Your task to perform on an android device: Open settings on Google Maps Image 0: 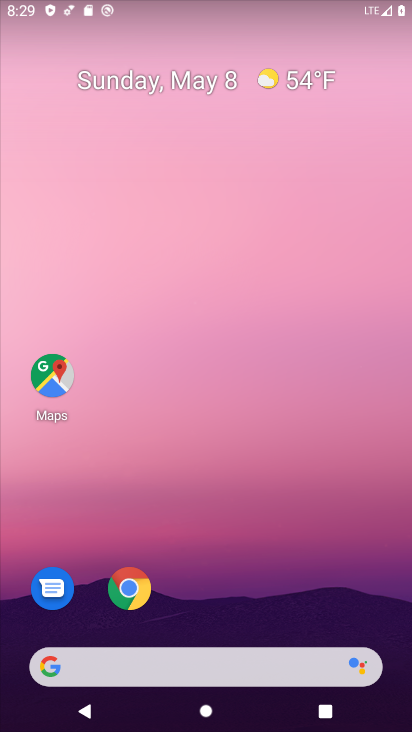
Step 0: click (48, 377)
Your task to perform on an android device: Open settings on Google Maps Image 1: 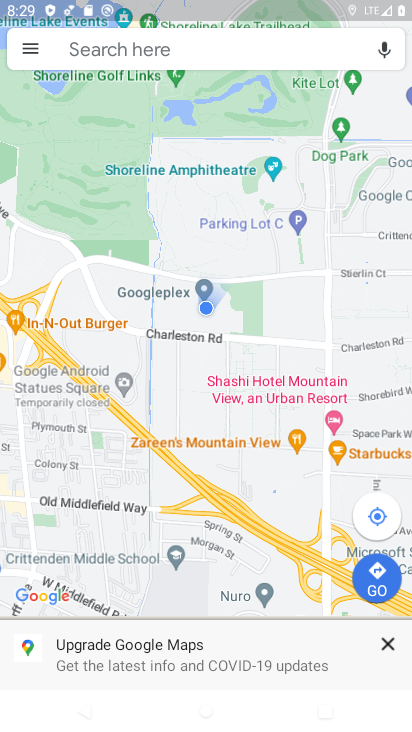
Step 1: click (23, 43)
Your task to perform on an android device: Open settings on Google Maps Image 2: 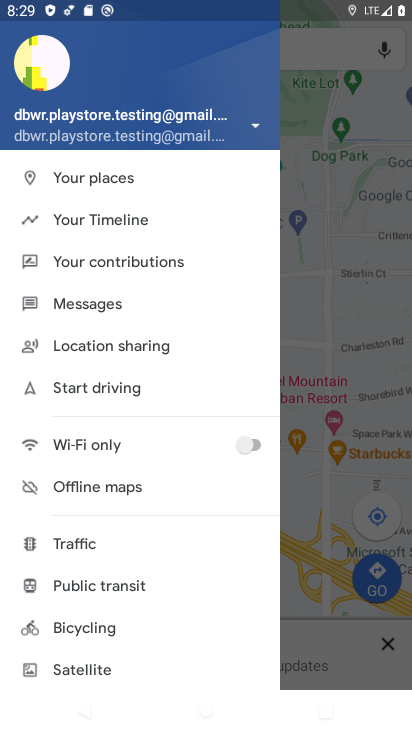
Step 2: drag from (98, 638) to (233, 200)
Your task to perform on an android device: Open settings on Google Maps Image 3: 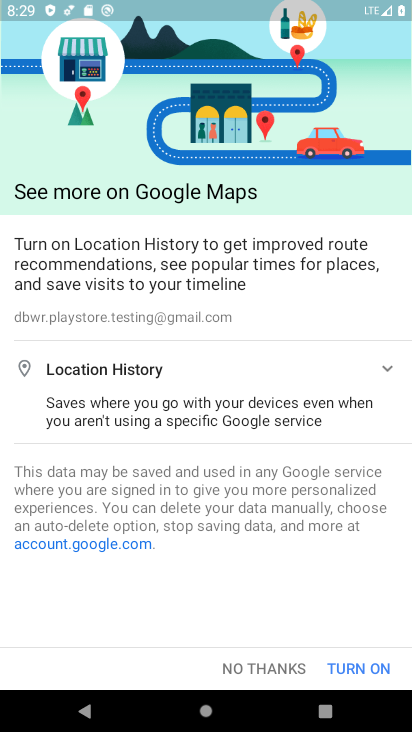
Step 3: press back button
Your task to perform on an android device: Open settings on Google Maps Image 4: 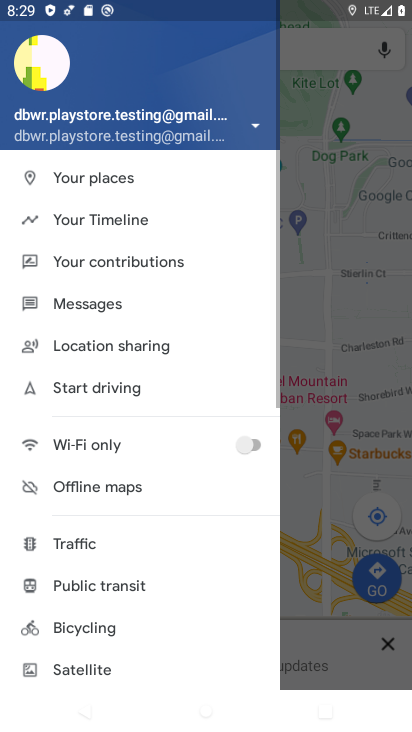
Step 4: drag from (76, 663) to (150, 222)
Your task to perform on an android device: Open settings on Google Maps Image 5: 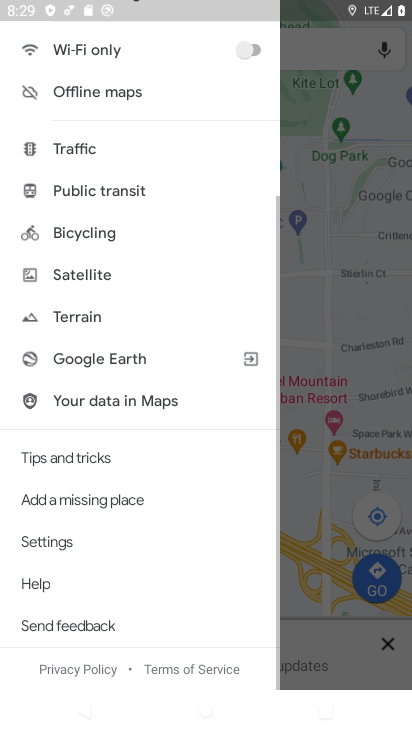
Step 5: click (64, 545)
Your task to perform on an android device: Open settings on Google Maps Image 6: 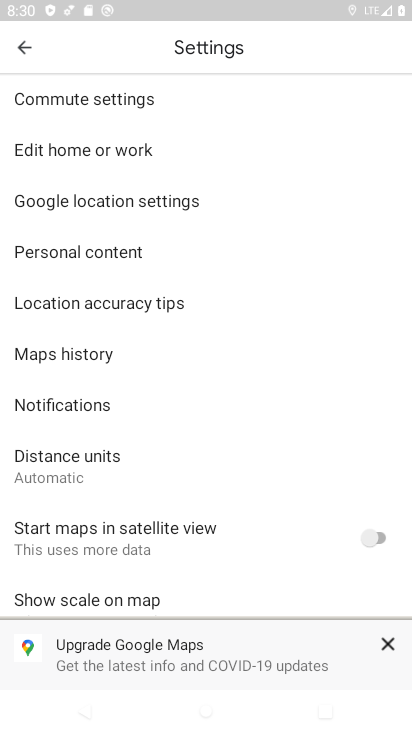
Step 6: task complete